Your task to perform on an android device: toggle data saver in the chrome app Image 0: 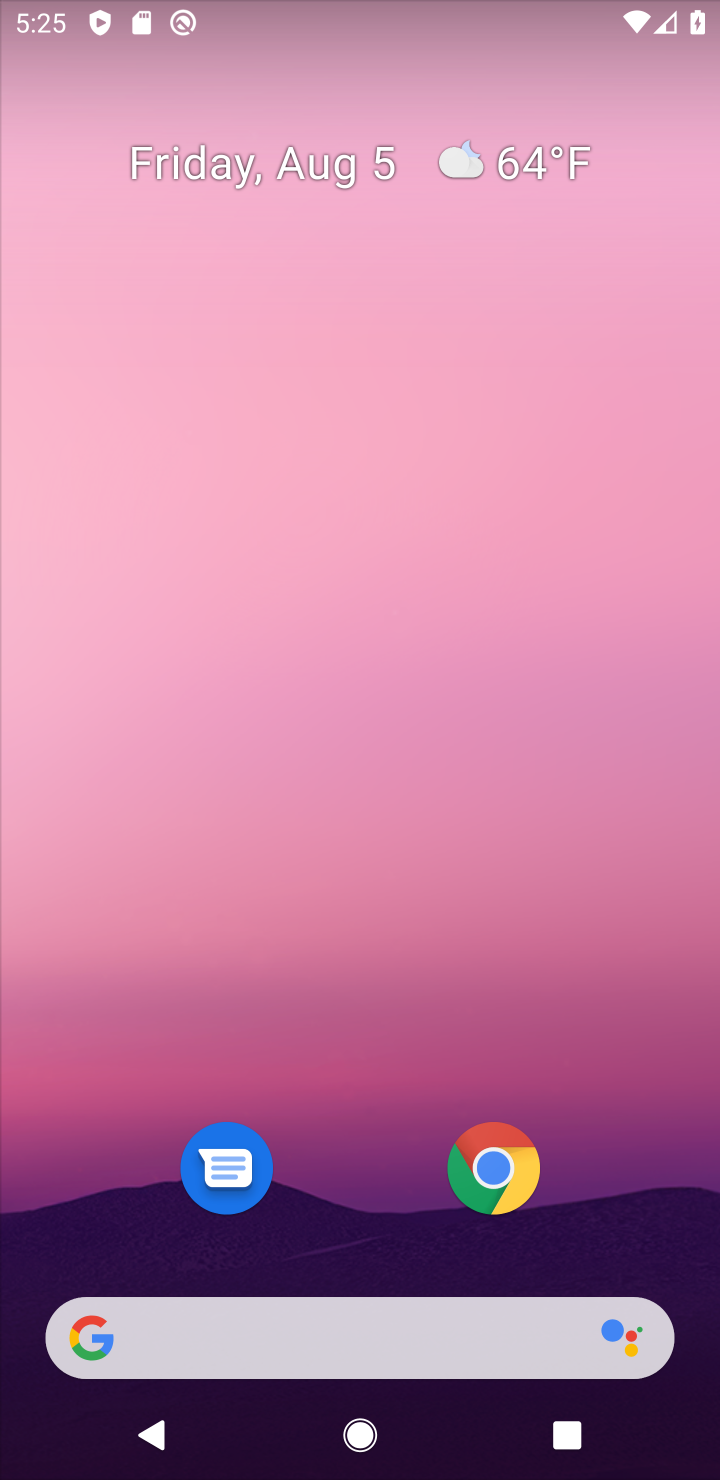
Step 0: press home button
Your task to perform on an android device: toggle data saver in the chrome app Image 1: 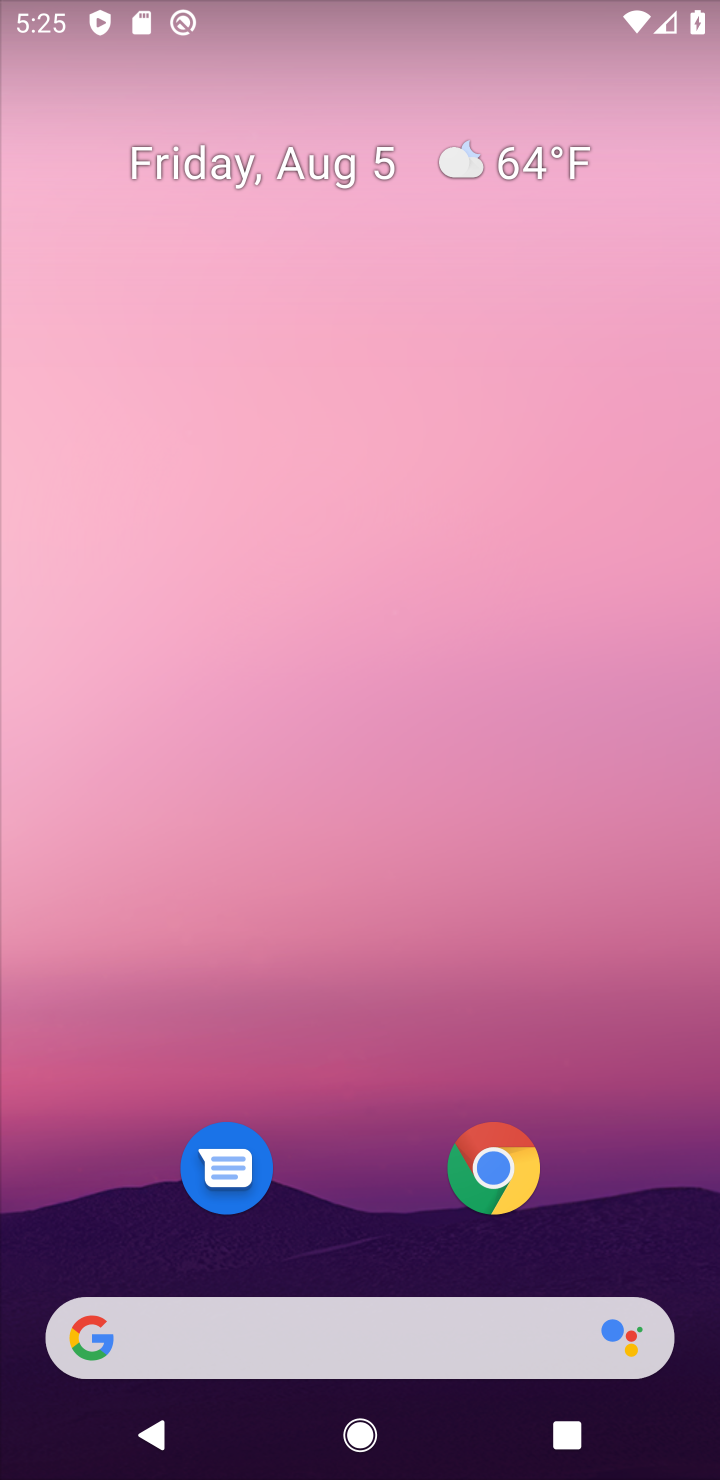
Step 1: click (461, 1157)
Your task to perform on an android device: toggle data saver in the chrome app Image 2: 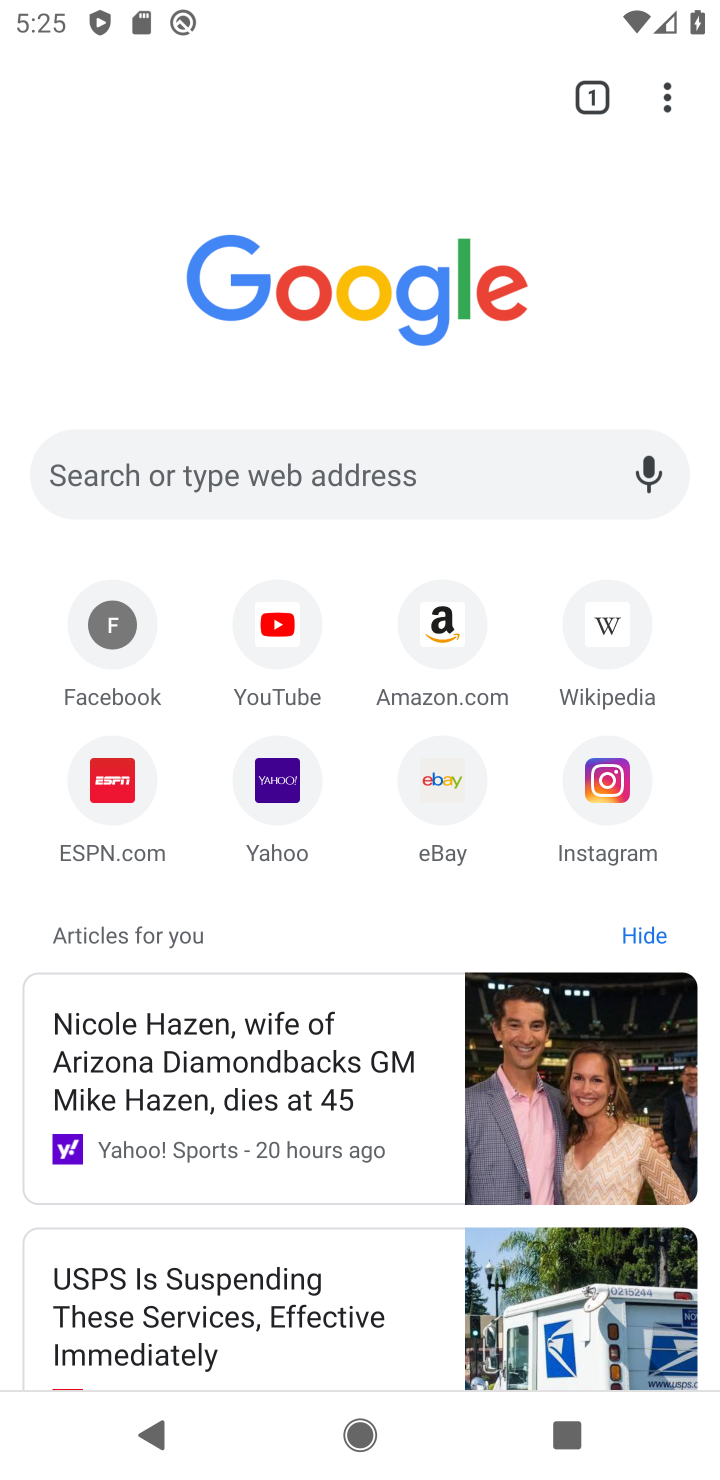
Step 2: drag from (670, 103) to (280, 818)
Your task to perform on an android device: toggle data saver in the chrome app Image 3: 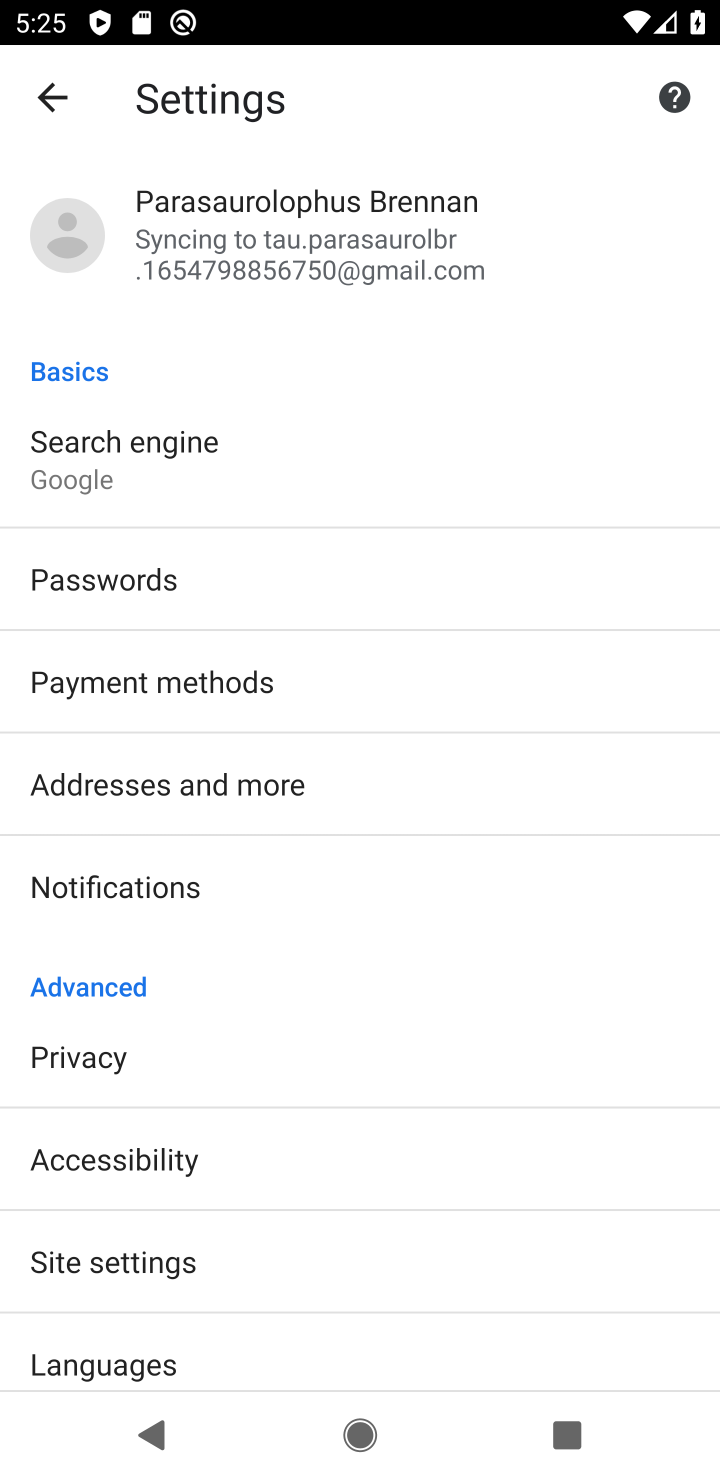
Step 3: drag from (345, 1351) to (379, 372)
Your task to perform on an android device: toggle data saver in the chrome app Image 4: 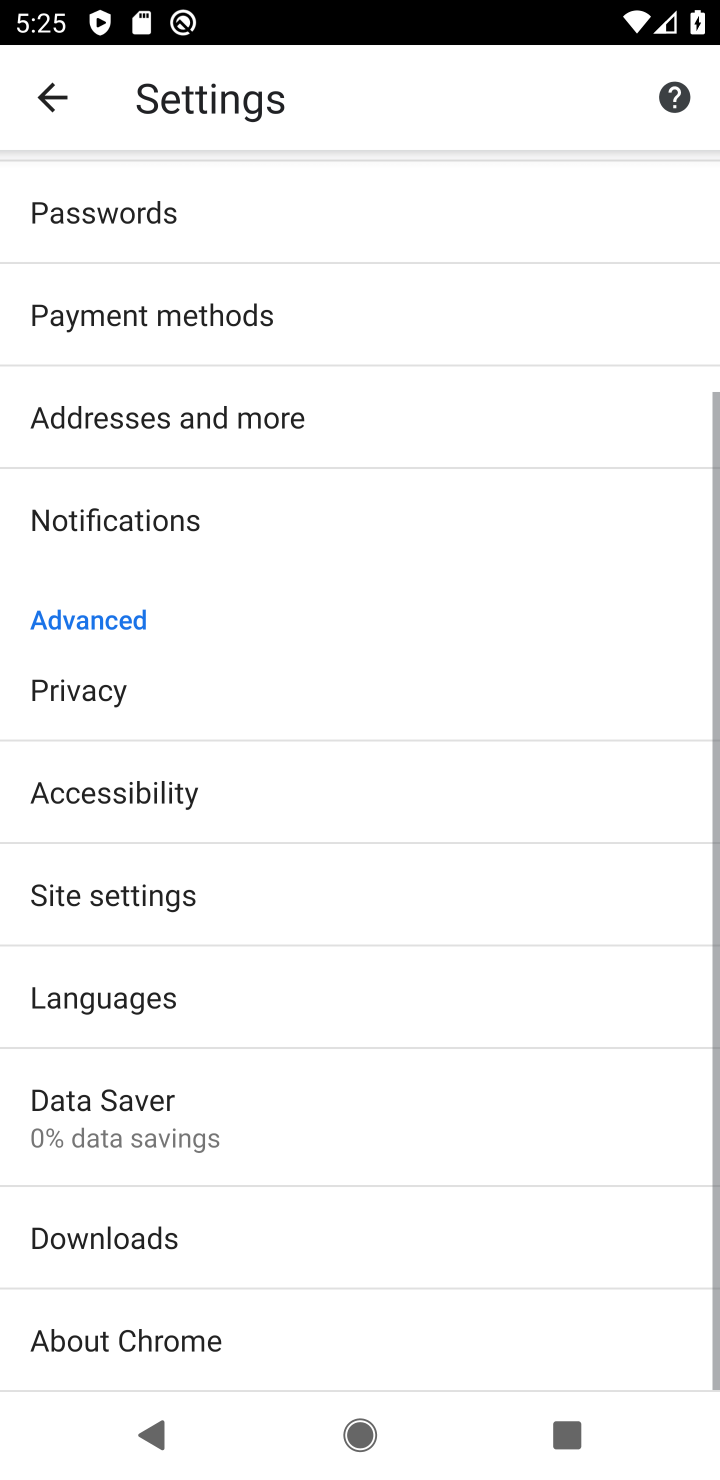
Step 4: click (74, 1107)
Your task to perform on an android device: toggle data saver in the chrome app Image 5: 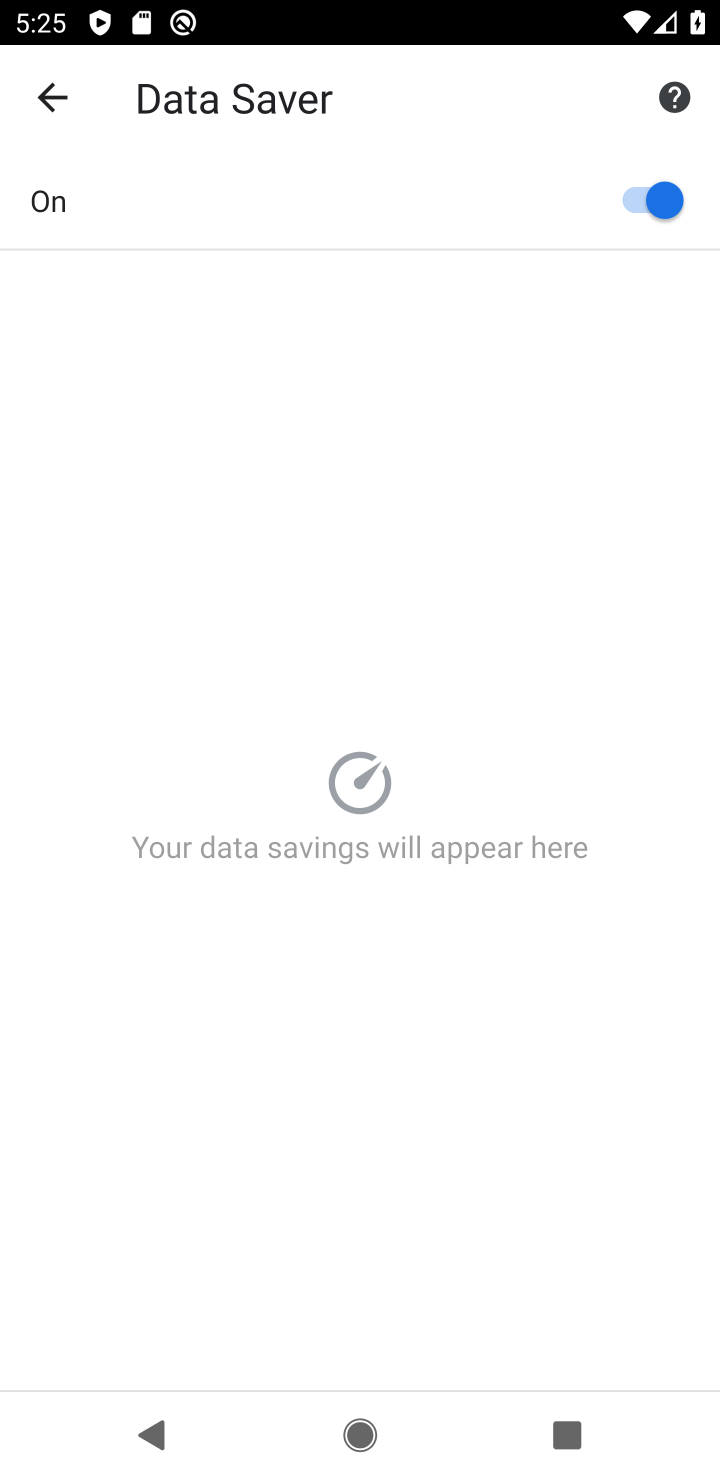
Step 5: click (672, 197)
Your task to perform on an android device: toggle data saver in the chrome app Image 6: 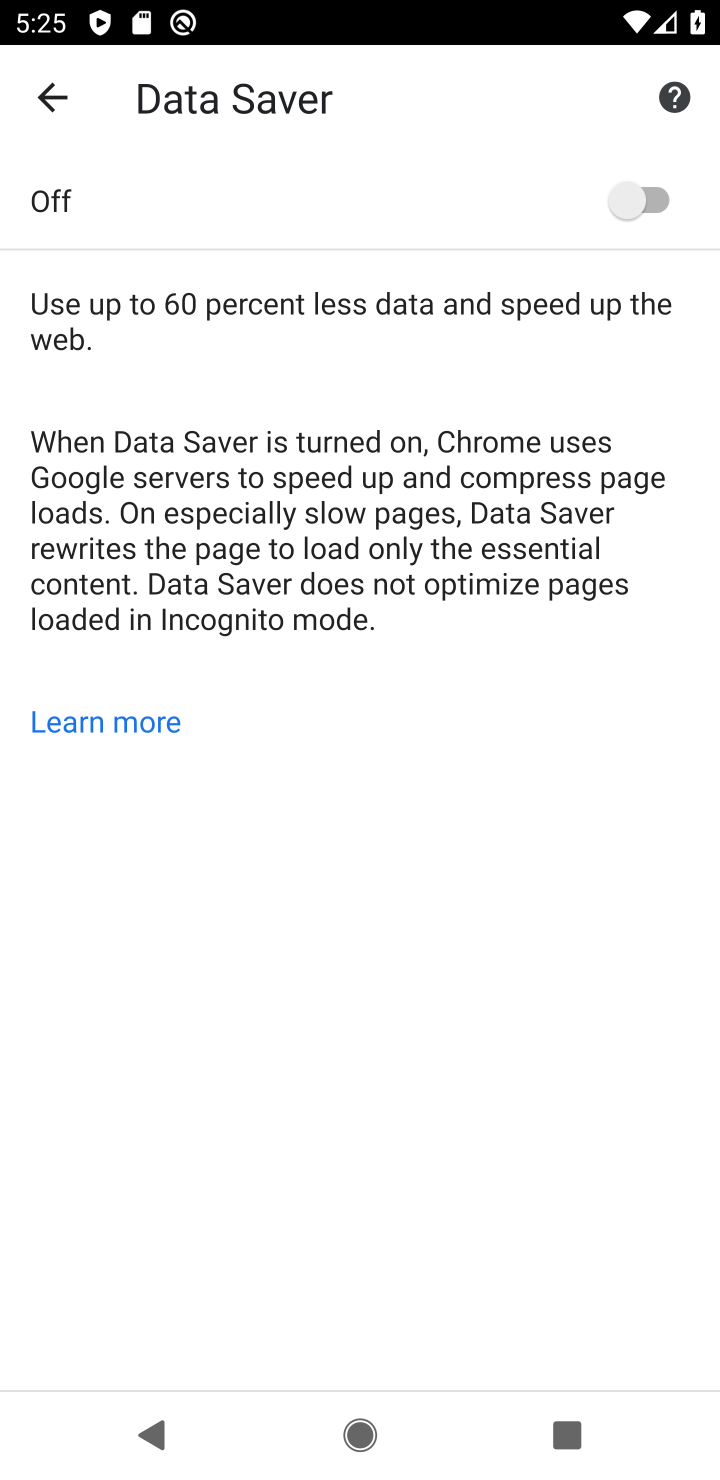
Step 6: task complete